Your task to perform on an android device: turn on the 12-hour format for clock Image 0: 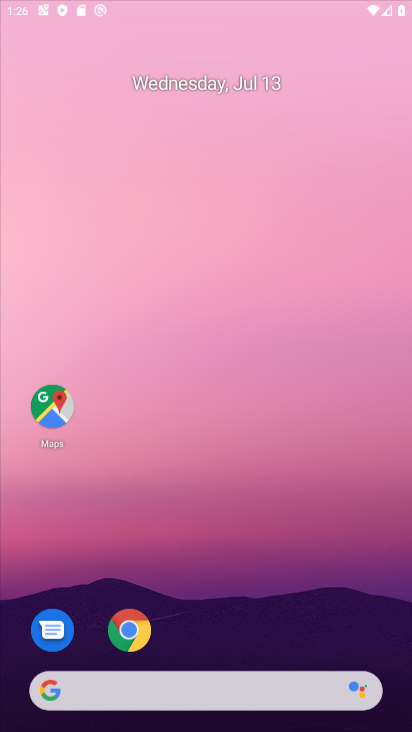
Step 0: press home button
Your task to perform on an android device: turn on the 12-hour format for clock Image 1: 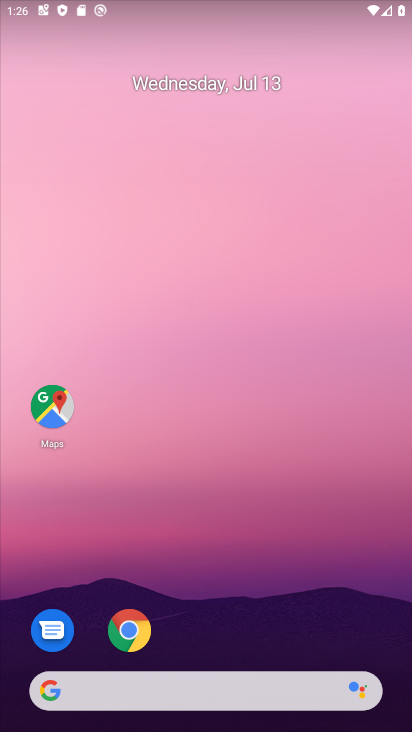
Step 1: drag from (358, 613) to (312, 122)
Your task to perform on an android device: turn on the 12-hour format for clock Image 2: 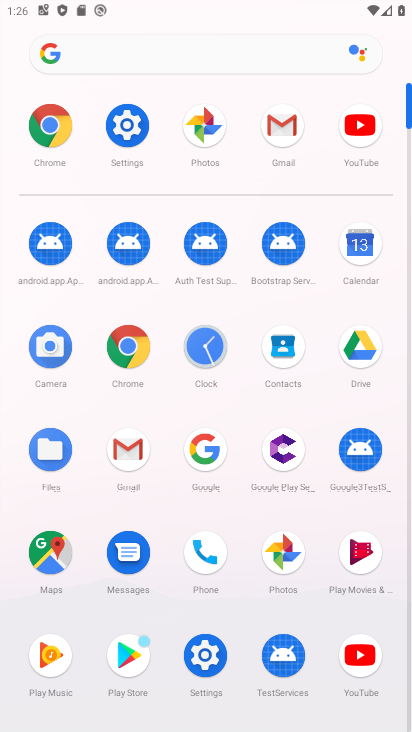
Step 2: click (208, 342)
Your task to perform on an android device: turn on the 12-hour format for clock Image 3: 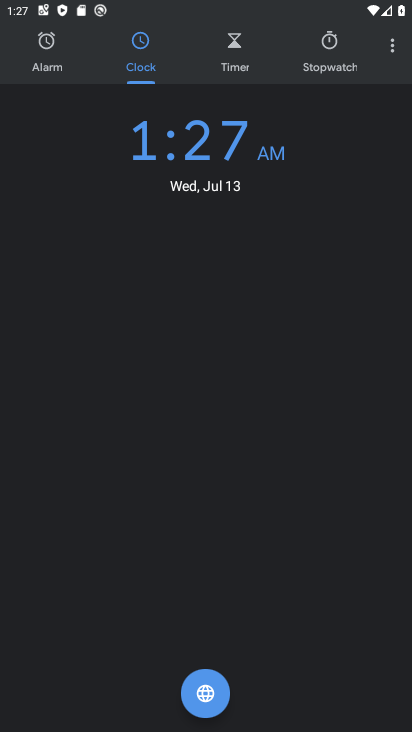
Step 3: click (392, 54)
Your task to perform on an android device: turn on the 12-hour format for clock Image 4: 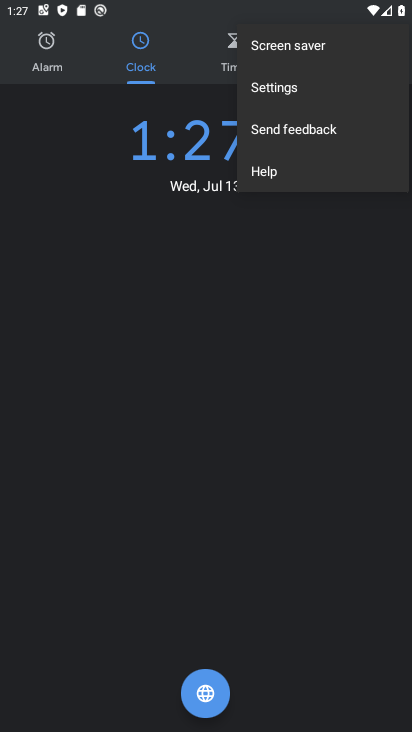
Step 4: click (317, 92)
Your task to perform on an android device: turn on the 12-hour format for clock Image 5: 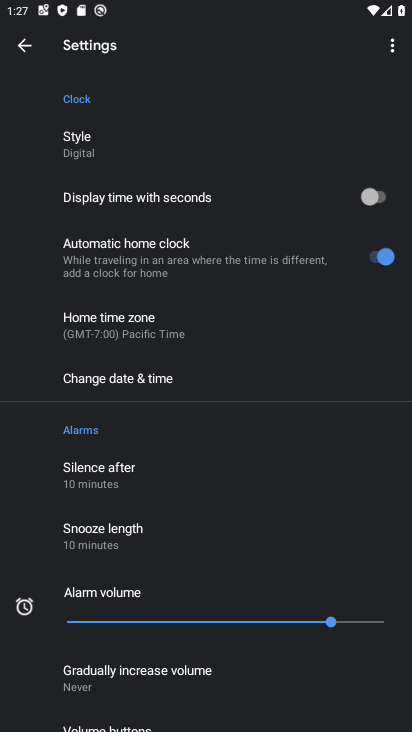
Step 5: drag from (296, 389) to (278, 208)
Your task to perform on an android device: turn on the 12-hour format for clock Image 6: 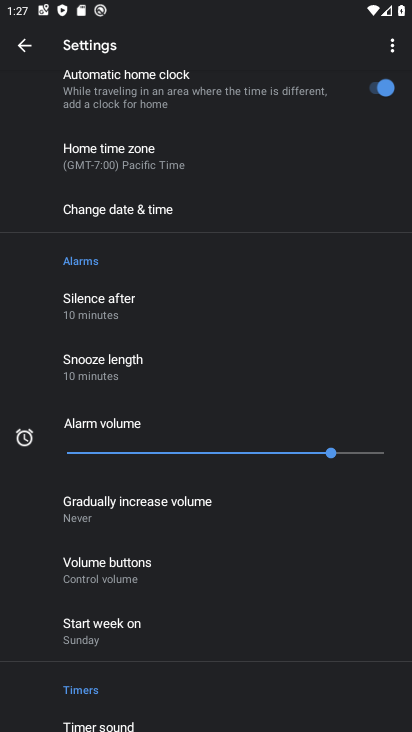
Step 6: drag from (289, 393) to (287, 240)
Your task to perform on an android device: turn on the 12-hour format for clock Image 7: 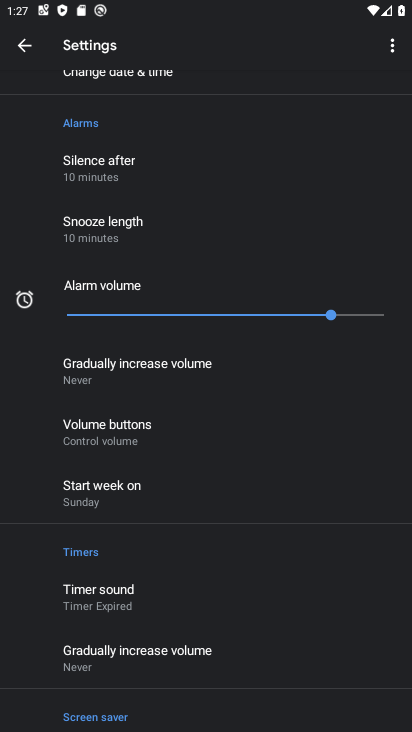
Step 7: drag from (278, 213) to (277, 372)
Your task to perform on an android device: turn on the 12-hour format for clock Image 8: 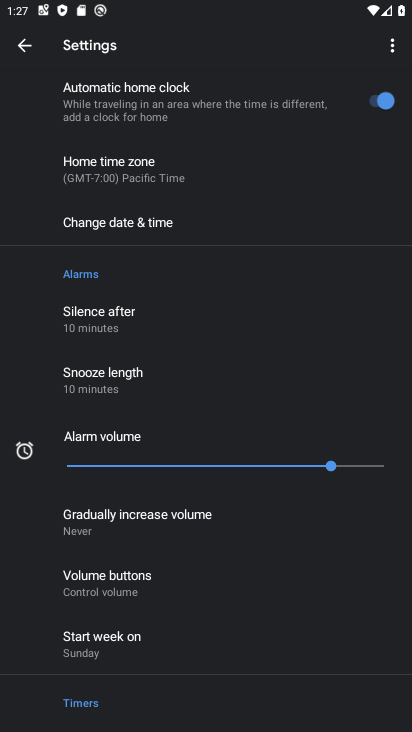
Step 8: drag from (272, 200) to (267, 378)
Your task to perform on an android device: turn on the 12-hour format for clock Image 9: 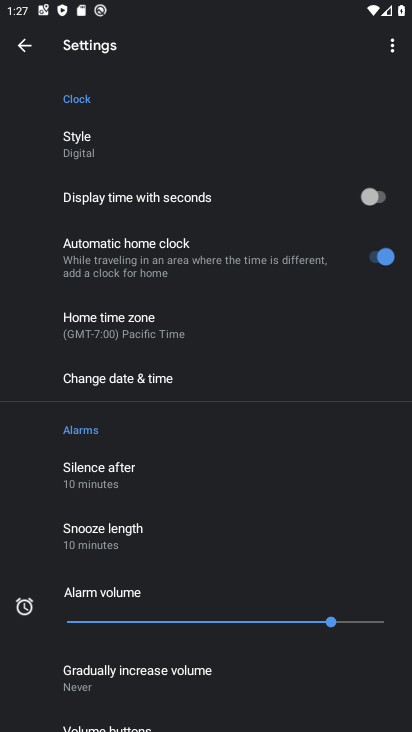
Step 9: click (157, 391)
Your task to perform on an android device: turn on the 12-hour format for clock Image 10: 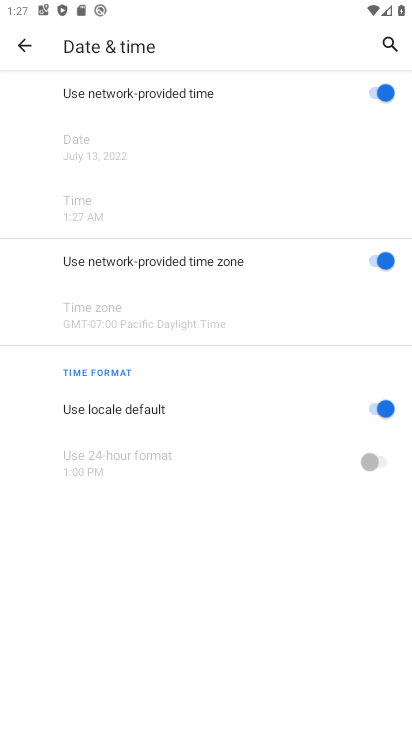
Step 10: task complete